Your task to perform on an android device: turn on data saver in the chrome app Image 0: 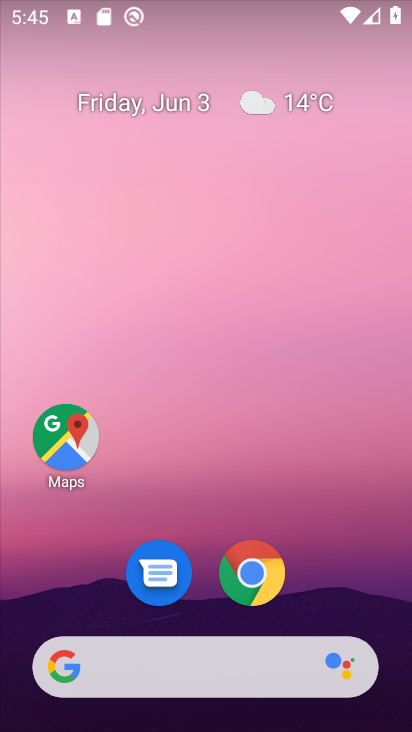
Step 0: drag from (347, 687) to (327, 66)
Your task to perform on an android device: turn on data saver in the chrome app Image 1: 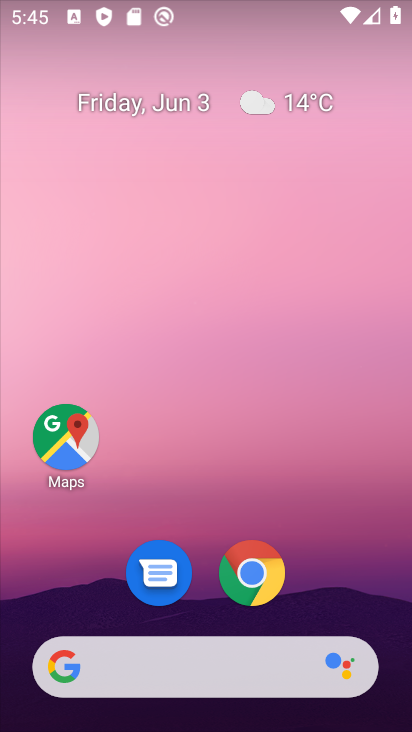
Step 1: drag from (257, 591) to (283, 8)
Your task to perform on an android device: turn on data saver in the chrome app Image 2: 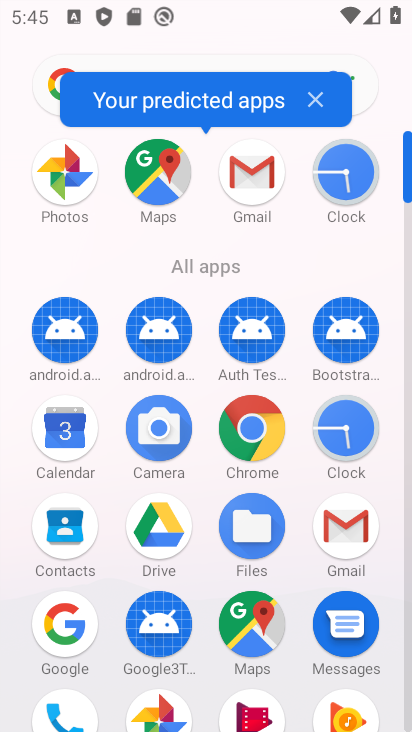
Step 2: click (264, 428)
Your task to perform on an android device: turn on data saver in the chrome app Image 3: 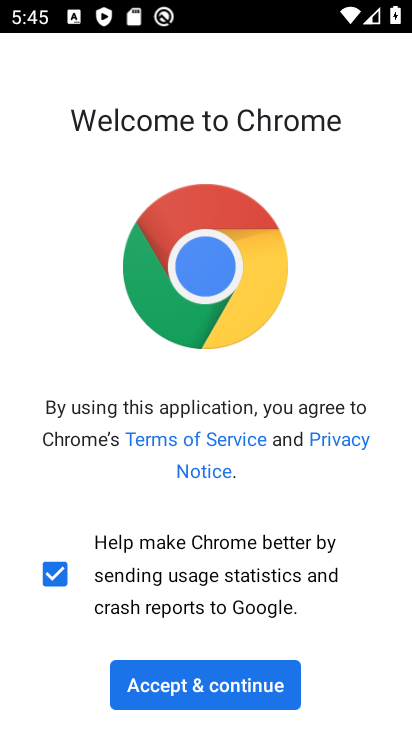
Step 3: click (229, 682)
Your task to perform on an android device: turn on data saver in the chrome app Image 4: 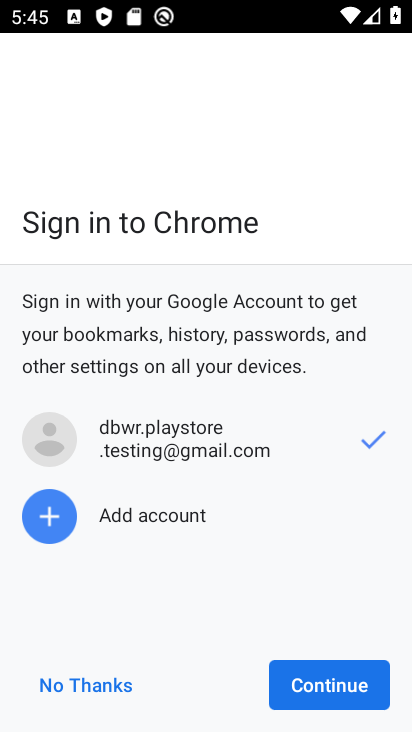
Step 4: click (104, 682)
Your task to perform on an android device: turn on data saver in the chrome app Image 5: 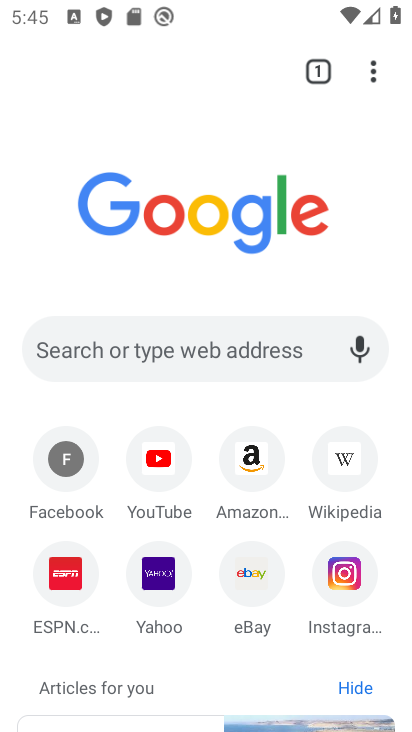
Step 5: drag from (379, 61) to (183, 613)
Your task to perform on an android device: turn on data saver in the chrome app Image 6: 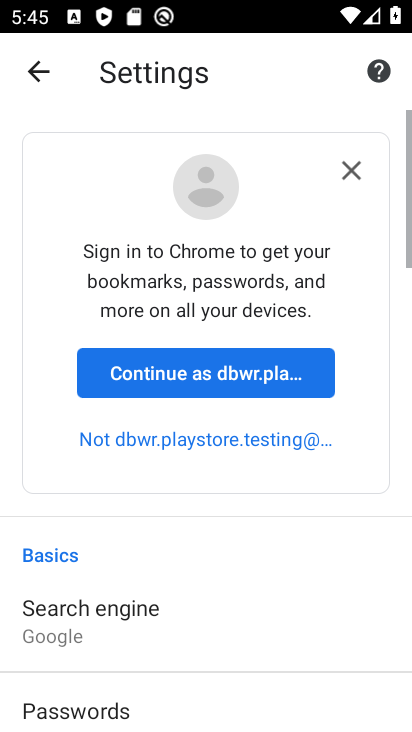
Step 6: drag from (197, 687) to (220, 59)
Your task to perform on an android device: turn on data saver in the chrome app Image 7: 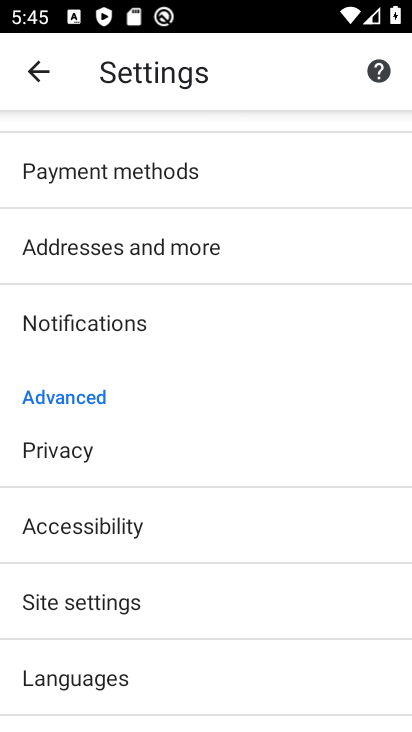
Step 7: drag from (140, 695) to (170, 403)
Your task to perform on an android device: turn on data saver in the chrome app Image 8: 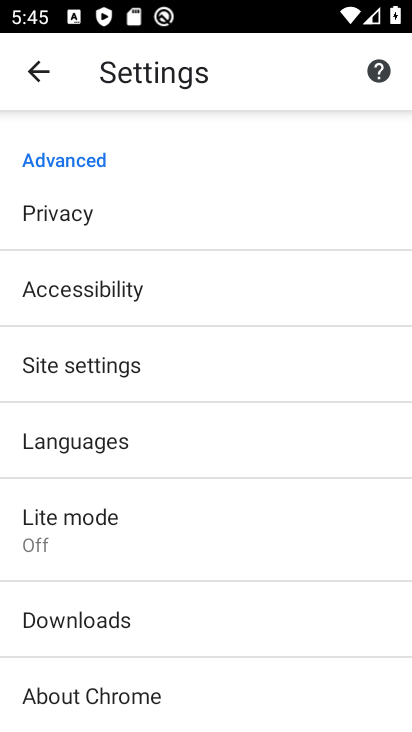
Step 8: click (133, 558)
Your task to perform on an android device: turn on data saver in the chrome app Image 9: 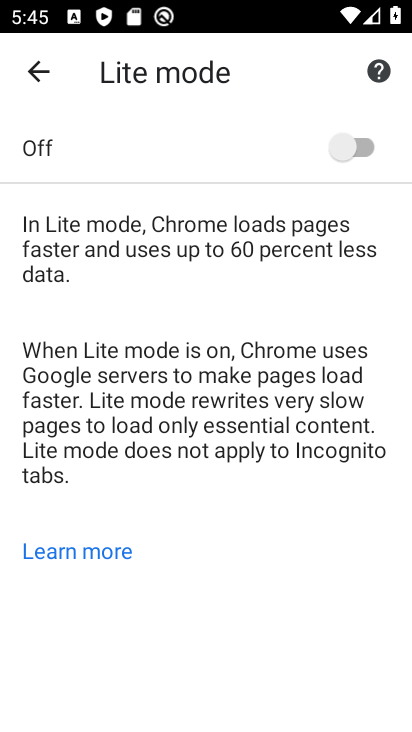
Step 9: click (354, 153)
Your task to perform on an android device: turn on data saver in the chrome app Image 10: 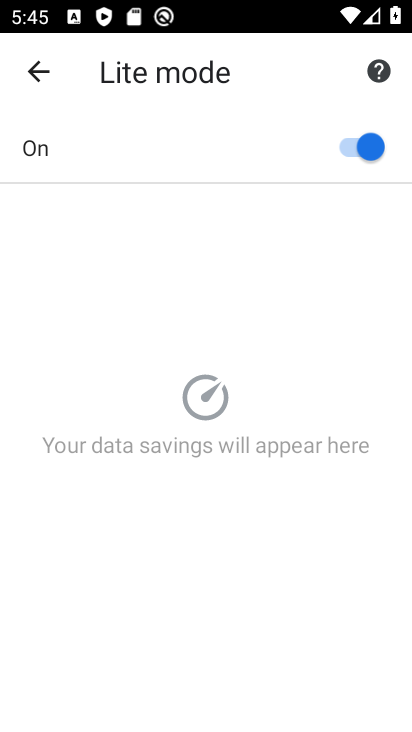
Step 10: task complete